Your task to perform on an android device: turn on the 12-hour format for clock Image 0: 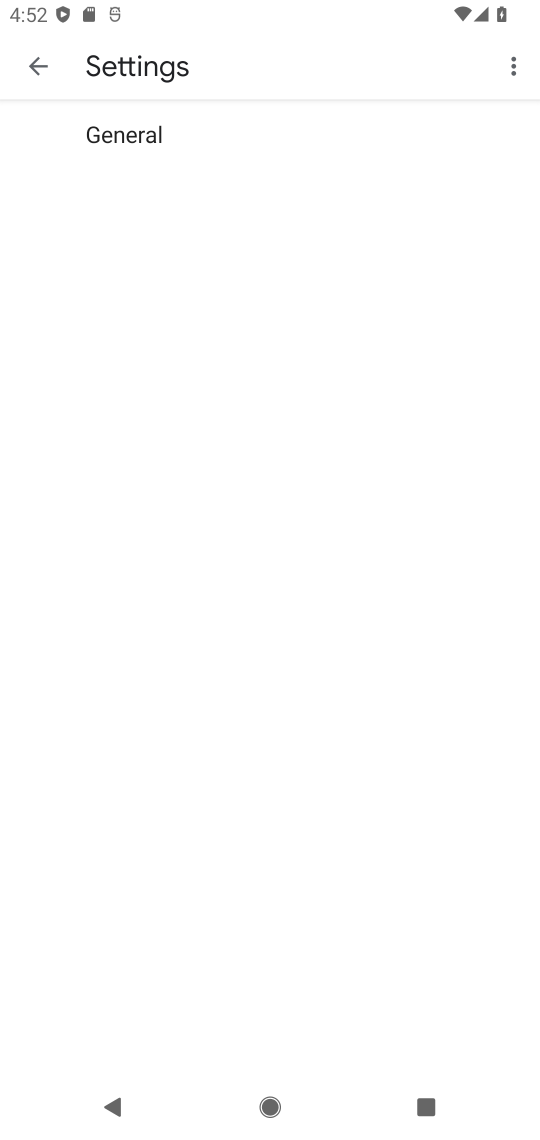
Step 0: press home button
Your task to perform on an android device: turn on the 12-hour format for clock Image 1: 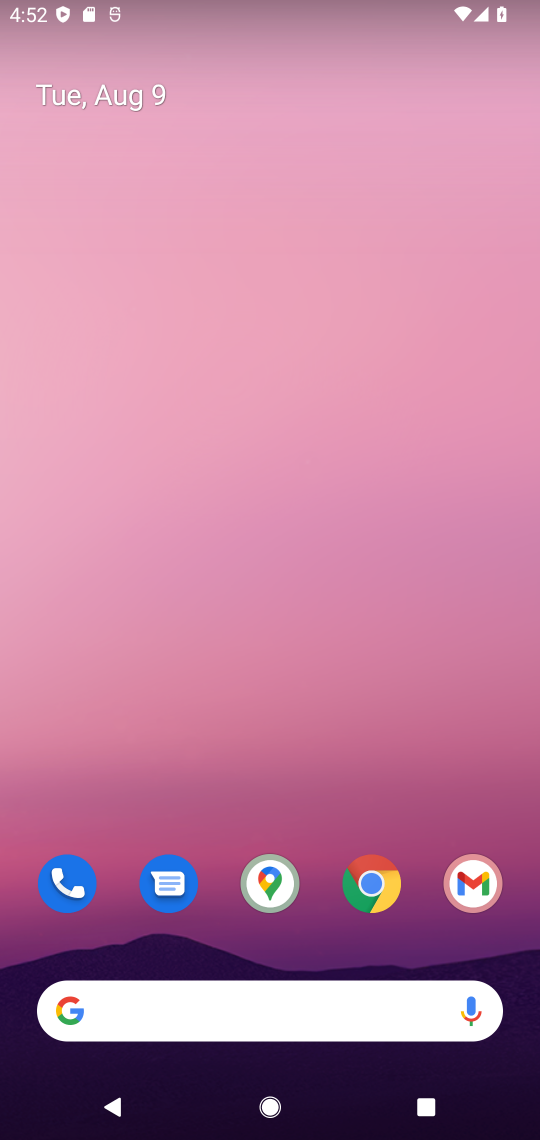
Step 1: drag from (222, 810) to (225, 274)
Your task to perform on an android device: turn on the 12-hour format for clock Image 2: 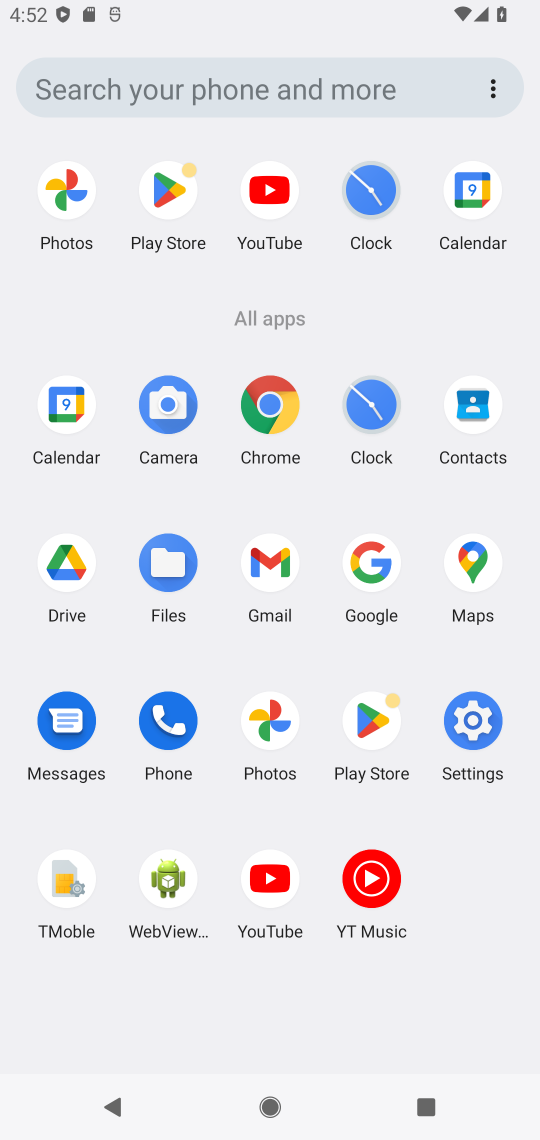
Step 2: click (365, 433)
Your task to perform on an android device: turn on the 12-hour format for clock Image 3: 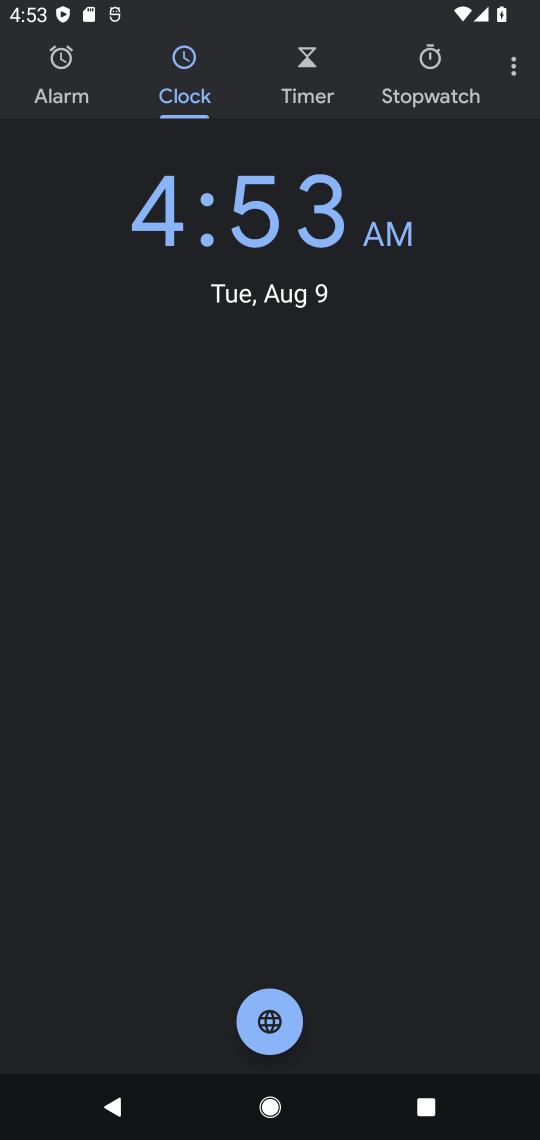
Step 3: click (503, 63)
Your task to perform on an android device: turn on the 12-hour format for clock Image 4: 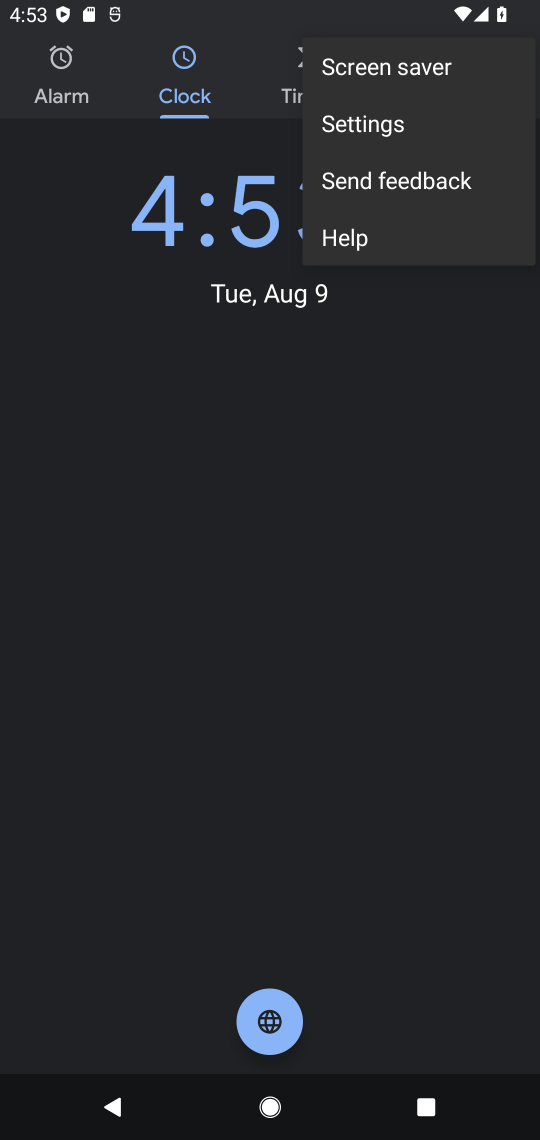
Step 4: click (370, 106)
Your task to perform on an android device: turn on the 12-hour format for clock Image 5: 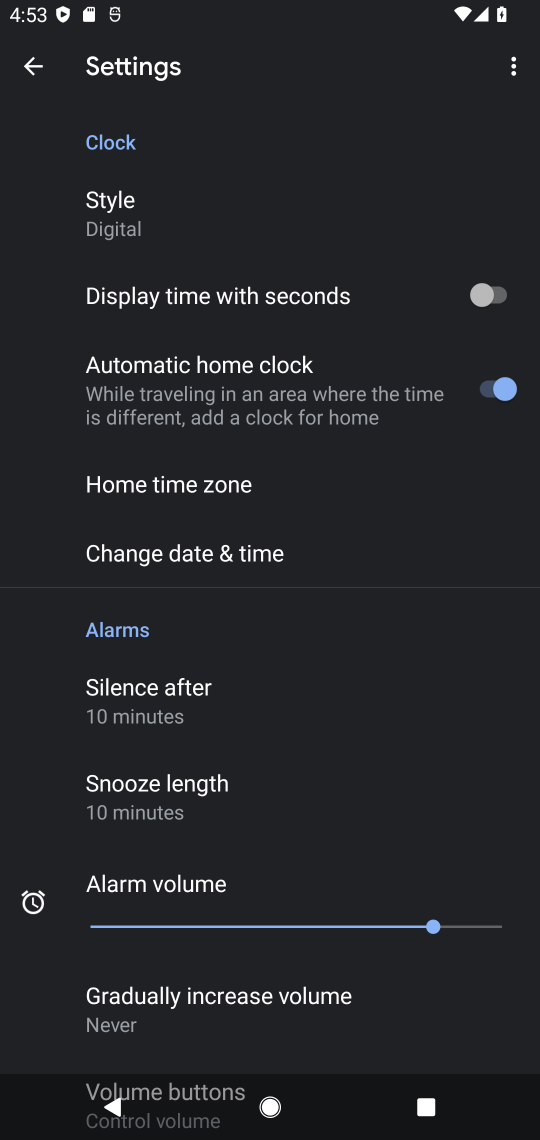
Step 5: click (219, 561)
Your task to perform on an android device: turn on the 12-hour format for clock Image 6: 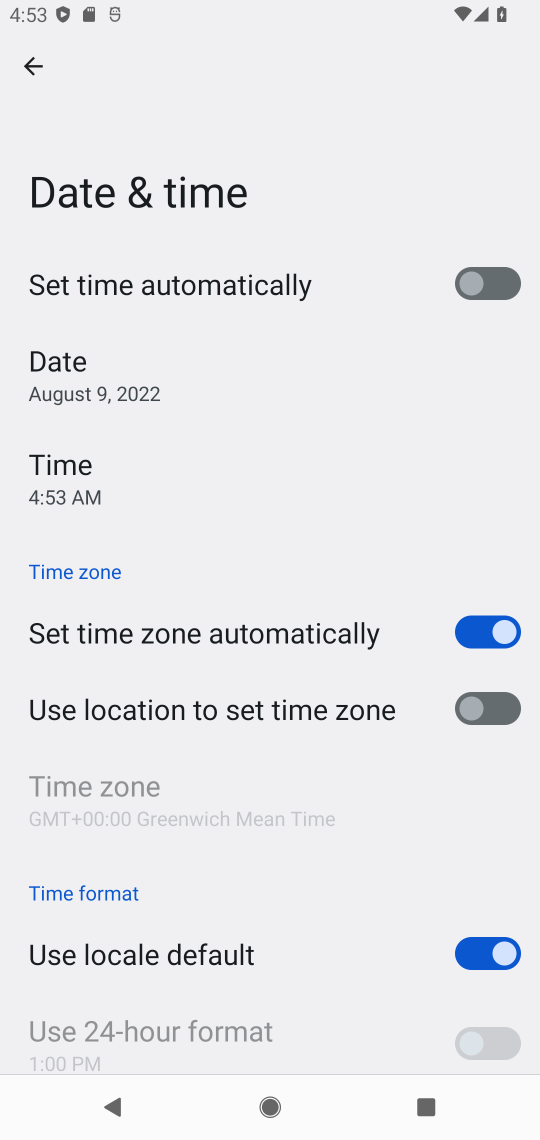
Step 6: task complete